Your task to perform on an android device: open app "Cash App" (install if not already installed) and go to login screen Image 0: 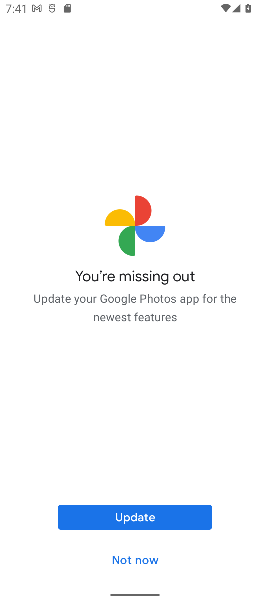
Step 0: press back button
Your task to perform on an android device: open app "Cash App" (install if not already installed) and go to login screen Image 1: 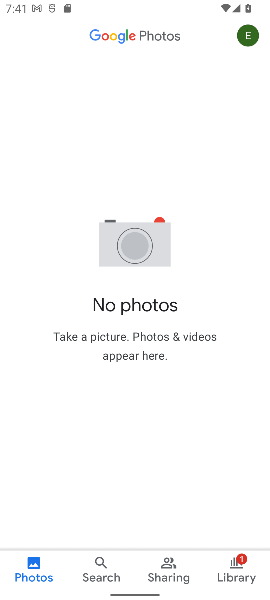
Step 1: press home button
Your task to perform on an android device: open app "Cash App" (install if not already installed) and go to login screen Image 2: 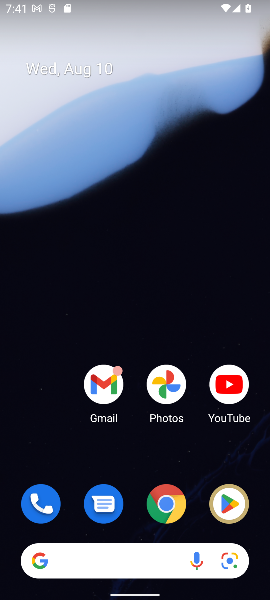
Step 2: click (205, 71)
Your task to perform on an android device: open app "Cash App" (install if not already installed) and go to login screen Image 3: 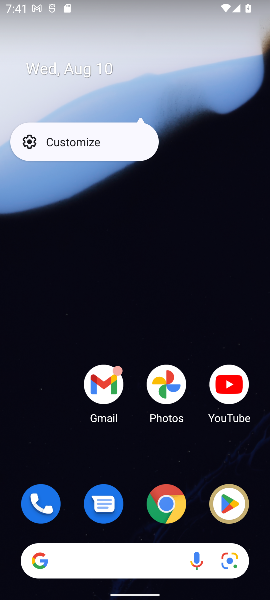
Step 3: click (221, 505)
Your task to perform on an android device: open app "Cash App" (install if not already installed) and go to login screen Image 4: 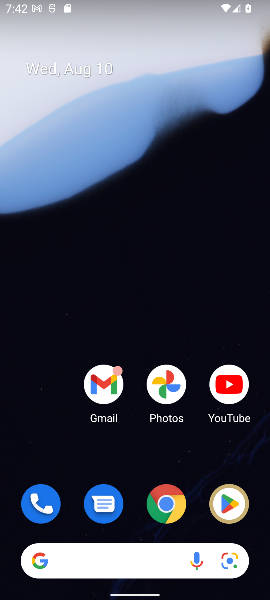
Step 4: click (226, 492)
Your task to perform on an android device: open app "Cash App" (install if not already installed) and go to login screen Image 5: 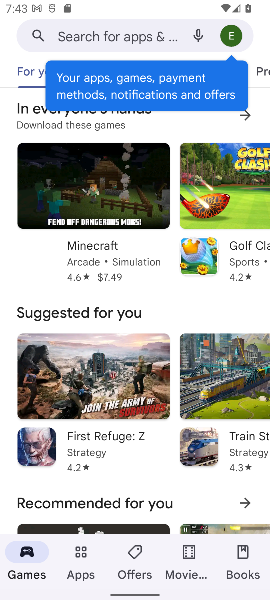
Step 5: click (144, 41)
Your task to perform on an android device: open app "Cash App" (install if not already installed) and go to login screen Image 6: 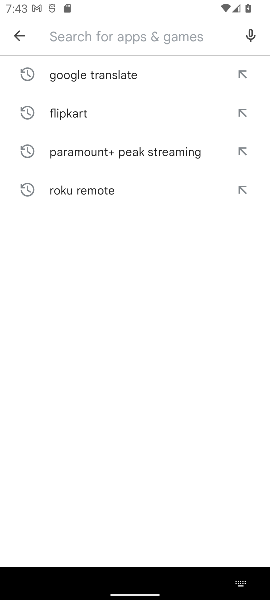
Step 6: type "cash app"
Your task to perform on an android device: open app "Cash App" (install if not already installed) and go to login screen Image 7: 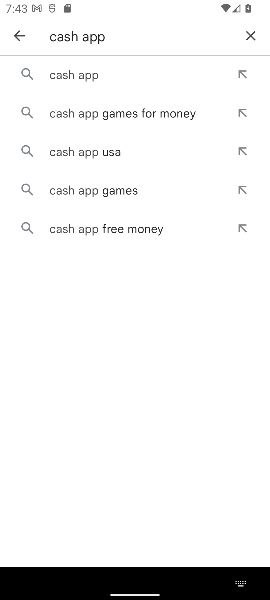
Step 7: click (72, 90)
Your task to perform on an android device: open app "Cash App" (install if not already installed) and go to login screen Image 8: 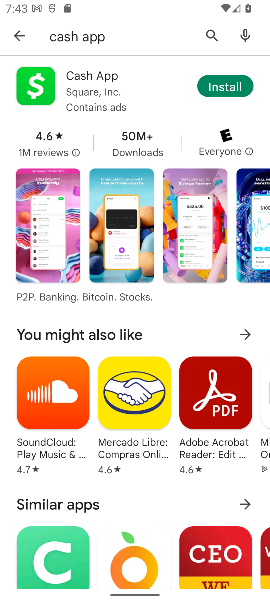
Step 8: click (216, 96)
Your task to perform on an android device: open app "Cash App" (install if not already installed) and go to login screen Image 9: 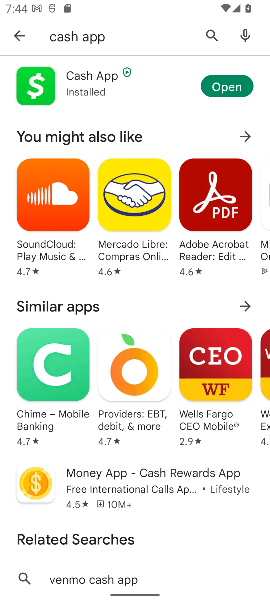
Step 9: click (233, 76)
Your task to perform on an android device: open app "Cash App" (install if not already installed) and go to login screen Image 10: 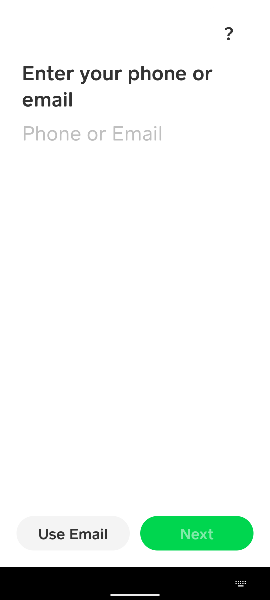
Step 10: task complete